Your task to perform on an android device: Open the calendar app, open the side menu, and click the "Day" option Image 0: 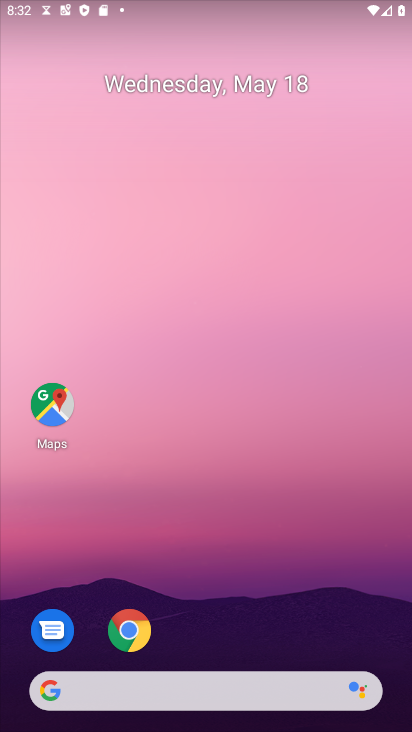
Step 0: press home button
Your task to perform on an android device: Open the calendar app, open the side menu, and click the "Day" option Image 1: 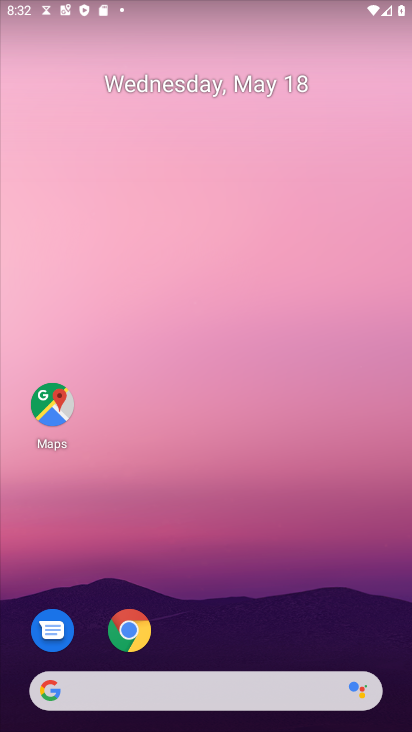
Step 1: drag from (144, 673) to (282, 200)
Your task to perform on an android device: Open the calendar app, open the side menu, and click the "Day" option Image 2: 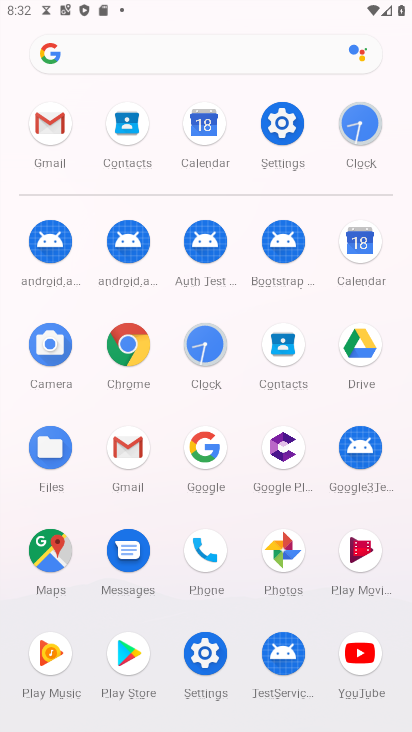
Step 2: click (351, 247)
Your task to perform on an android device: Open the calendar app, open the side menu, and click the "Day" option Image 3: 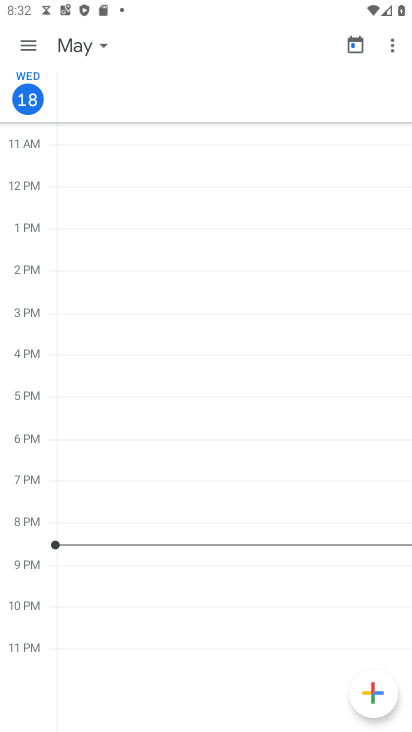
Step 3: click (31, 44)
Your task to perform on an android device: Open the calendar app, open the side menu, and click the "Day" option Image 4: 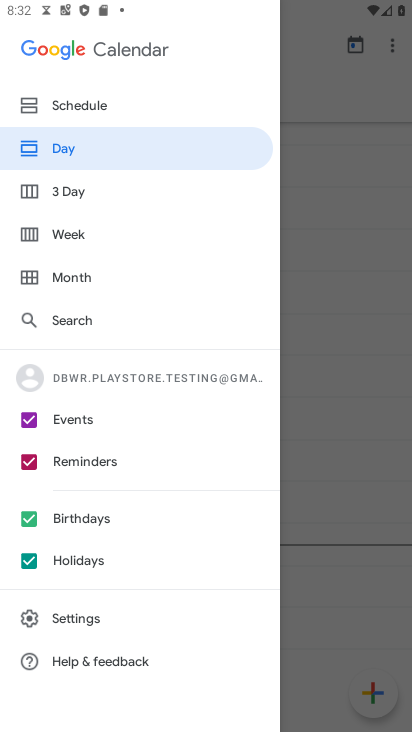
Step 4: click (70, 151)
Your task to perform on an android device: Open the calendar app, open the side menu, and click the "Day" option Image 5: 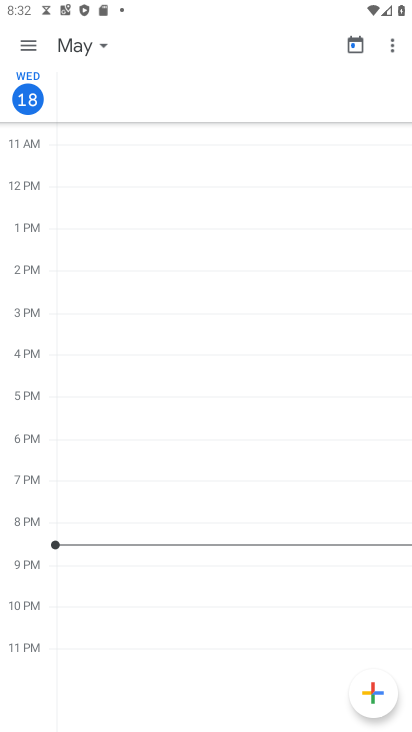
Step 5: task complete